Your task to perform on an android device: Open the web browser Image 0: 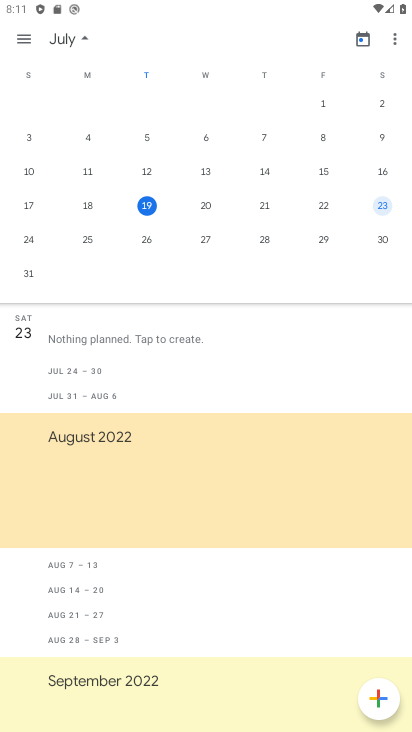
Step 0: press home button
Your task to perform on an android device: Open the web browser Image 1: 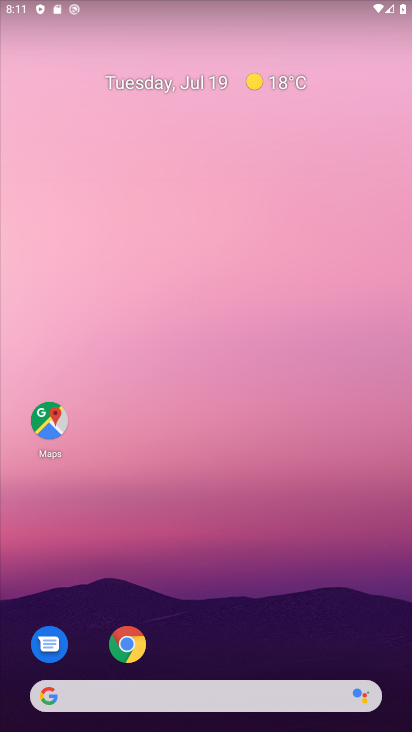
Step 1: click (126, 640)
Your task to perform on an android device: Open the web browser Image 2: 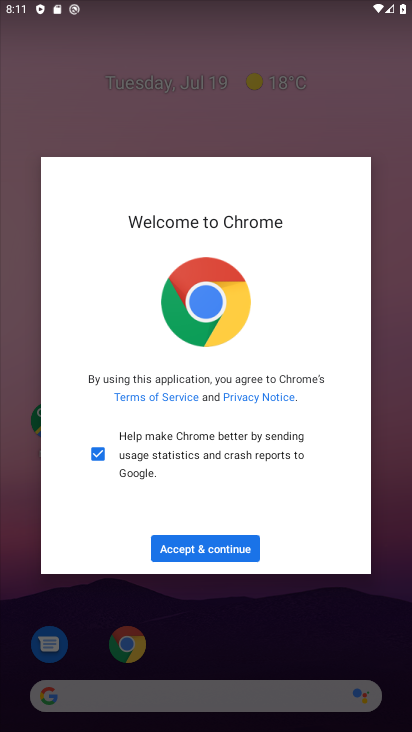
Step 2: click (191, 544)
Your task to perform on an android device: Open the web browser Image 3: 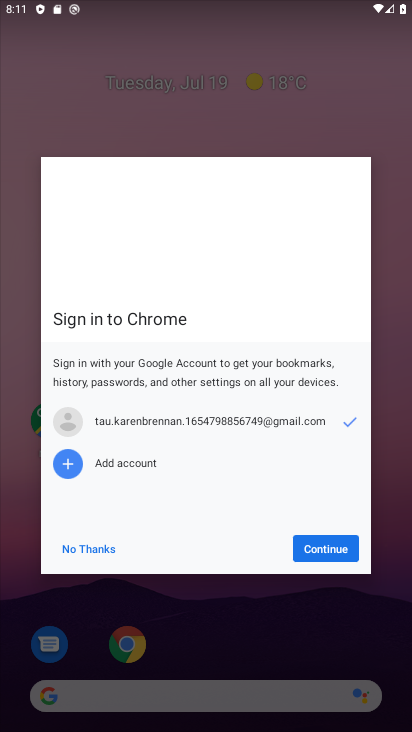
Step 3: click (324, 544)
Your task to perform on an android device: Open the web browser Image 4: 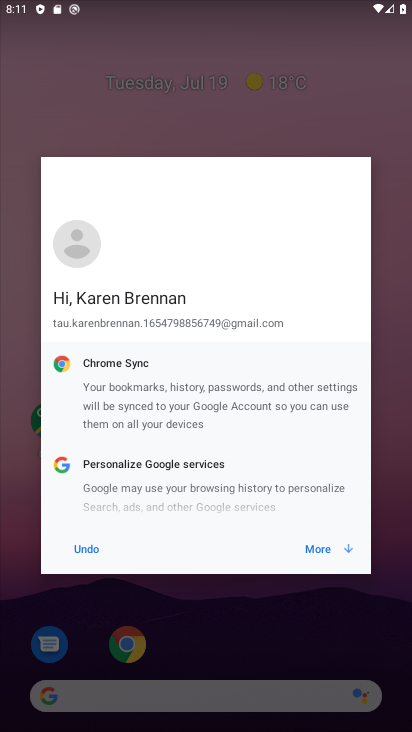
Step 4: click (319, 547)
Your task to perform on an android device: Open the web browser Image 5: 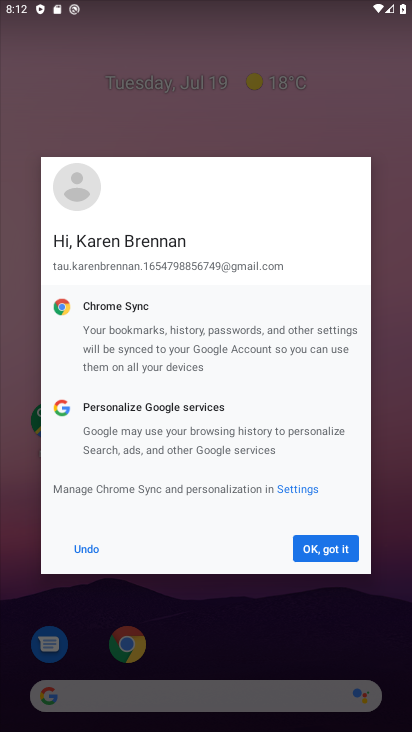
Step 5: click (324, 544)
Your task to perform on an android device: Open the web browser Image 6: 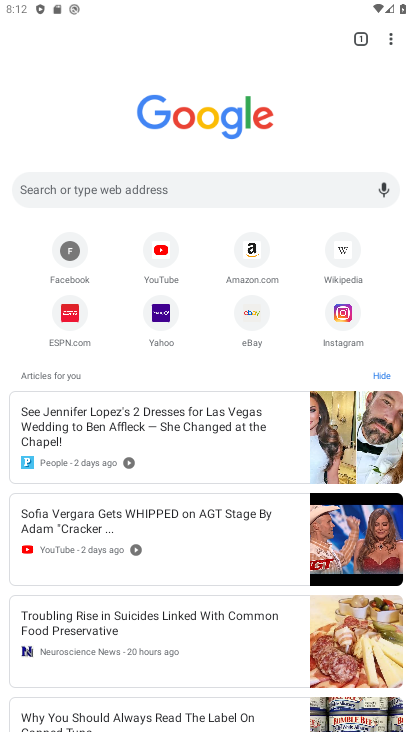
Step 6: task complete